Your task to perform on an android device: Go to wifi settings Image 0: 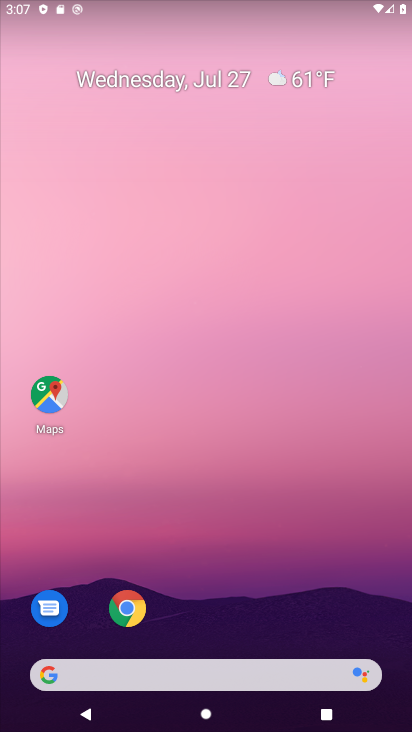
Step 0: drag from (234, 718) to (223, 170)
Your task to perform on an android device: Go to wifi settings Image 1: 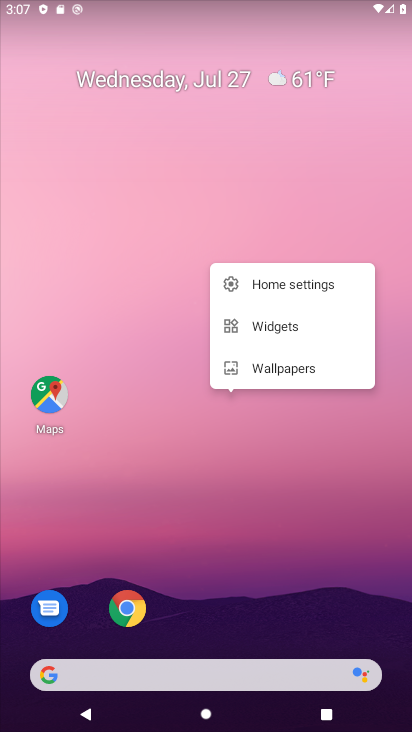
Step 1: click (187, 499)
Your task to perform on an android device: Go to wifi settings Image 2: 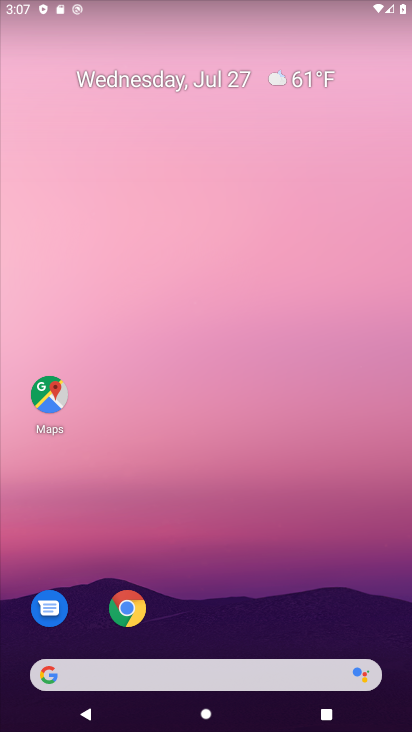
Step 2: drag from (219, 716) to (220, 127)
Your task to perform on an android device: Go to wifi settings Image 3: 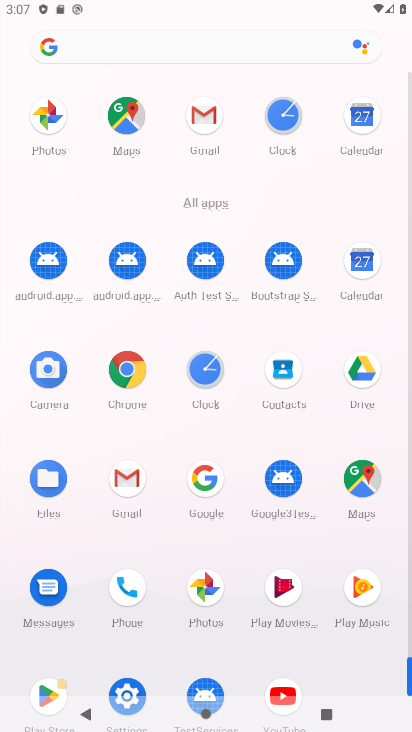
Step 3: click (129, 689)
Your task to perform on an android device: Go to wifi settings Image 4: 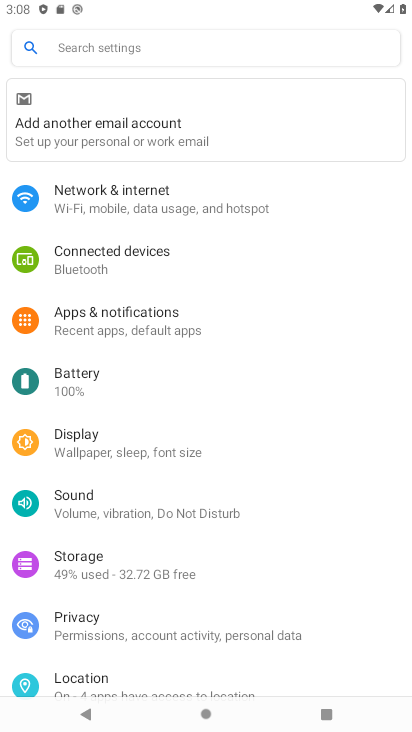
Step 4: click (121, 205)
Your task to perform on an android device: Go to wifi settings Image 5: 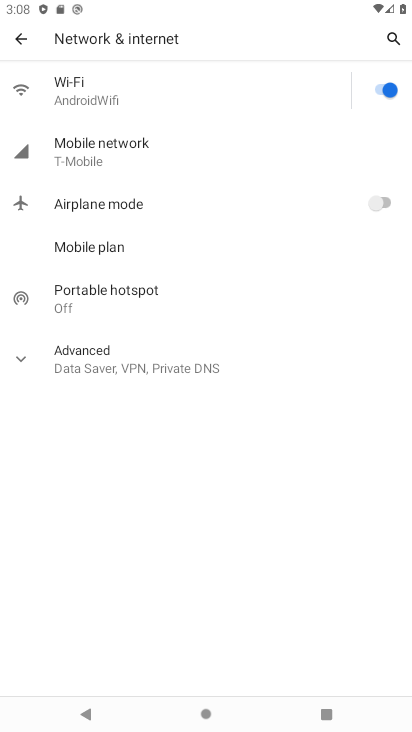
Step 5: click (78, 82)
Your task to perform on an android device: Go to wifi settings Image 6: 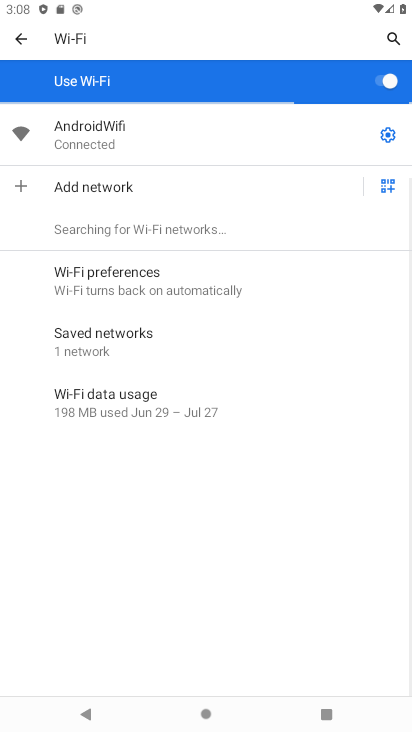
Step 6: task complete